Your task to perform on an android device: turn on javascript in the chrome app Image 0: 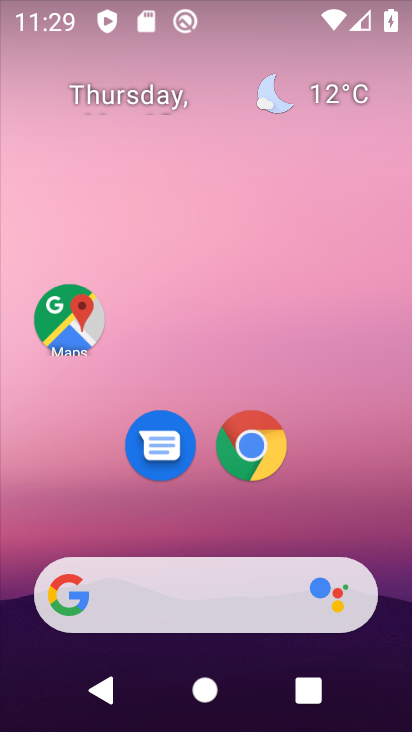
Step 0: click (260, 459)
Your task to perform on an android device: turn on javascript in the chrome app Image 1: 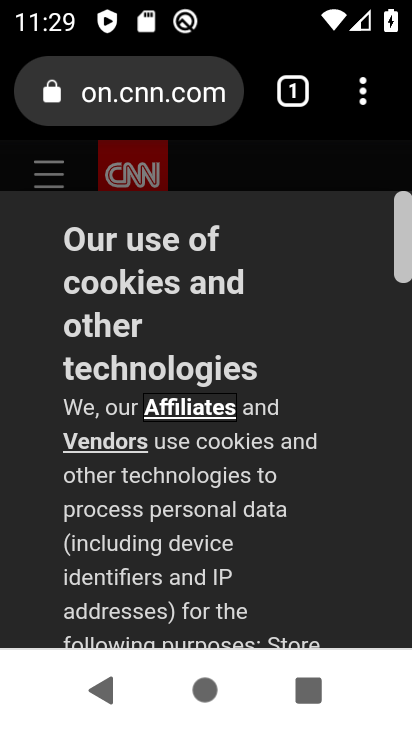
Step 1: drag from (367, 93) to (110, 471)
Your task to perform on an android device: turn on javascript in the chrome app Image 2: 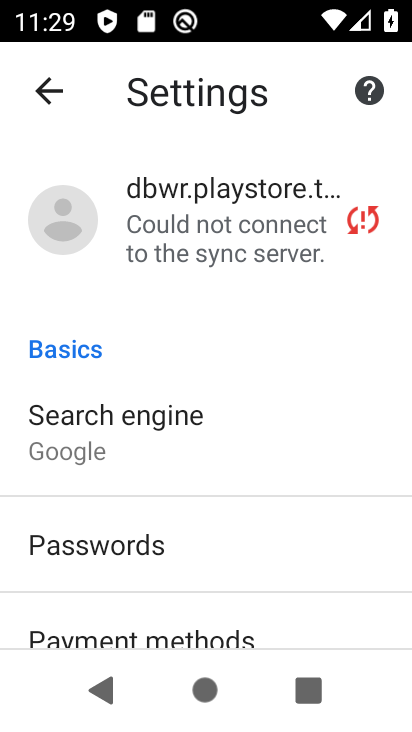
Step 2: drag from (166, 590) to (173, 207)
Your task to perform on an android device: turn on javascript in the chrome app Image 3: 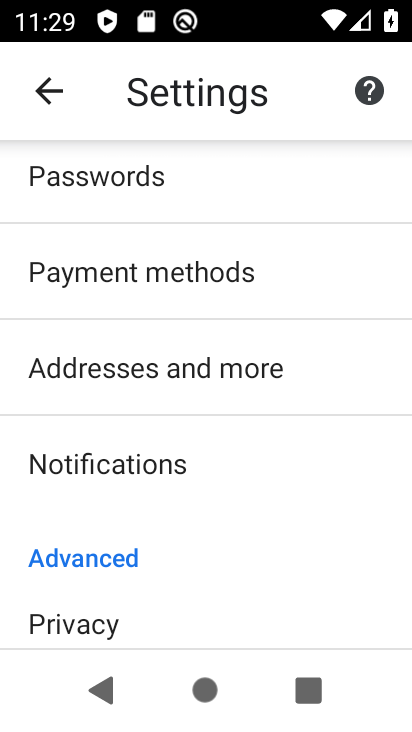
Step 3: drag from (145, 568) to (124, 282)
Your task to perform on an android device: turn on javascript in the chrome app Image 4: 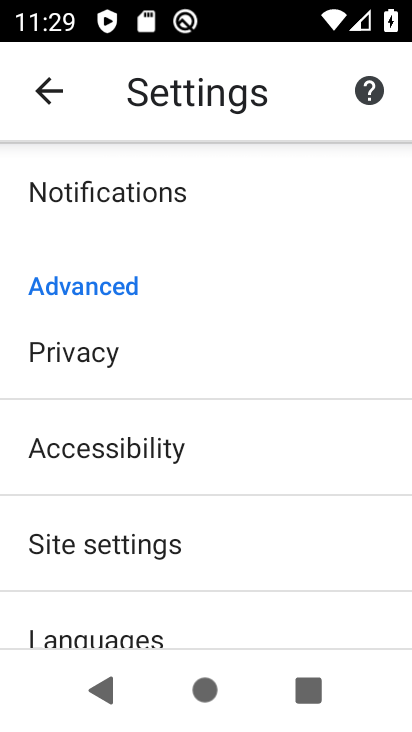
Step 4: click (128, 536)
Your task to perform on an android device: turn on javascript in the chrome app Image 5: 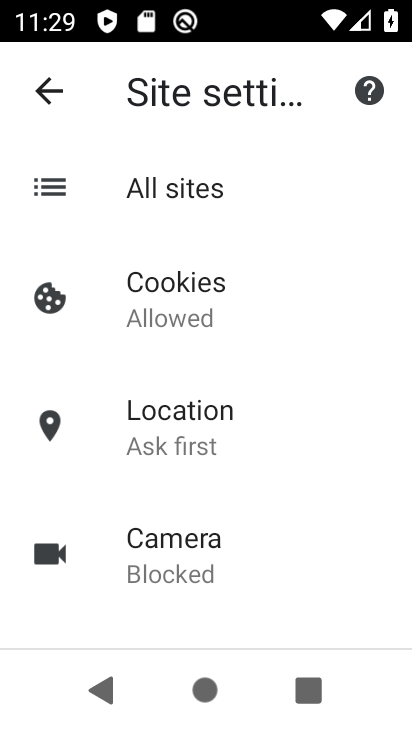
Step 5: drag from (195, 542) to (189, 3)
Your task to perform on an android device: turn on javascript in the chrome app Image 6: 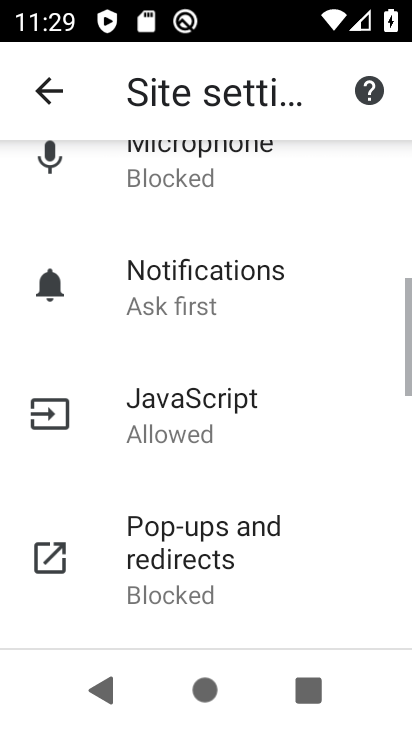
Step 6: click (223, 472)
Your task to perform on an android device: turn on javascript in the chrome app Image 7: 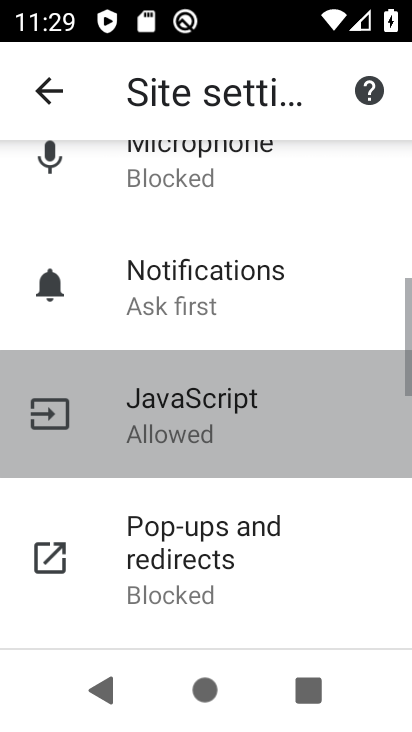
Step 7: click (223, 472)
Your task to perform on an android device: turn on javascript in the chrome app Image 8: 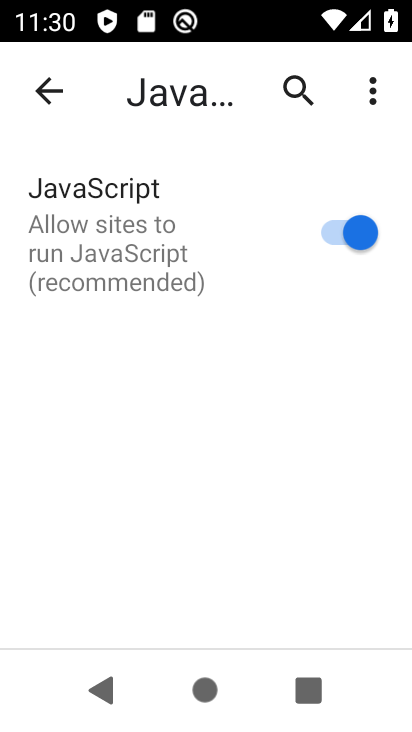
Step 8: task complete